Your task to perform on an android device: Set the phone to "Do not disturb". Image 0: 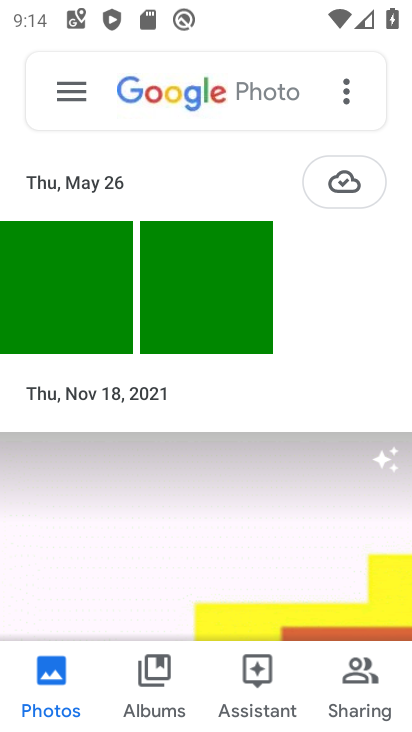
Step 0: press home button
Your task to perform on an android device: Set the phone to "Do not disturb". Image 1: 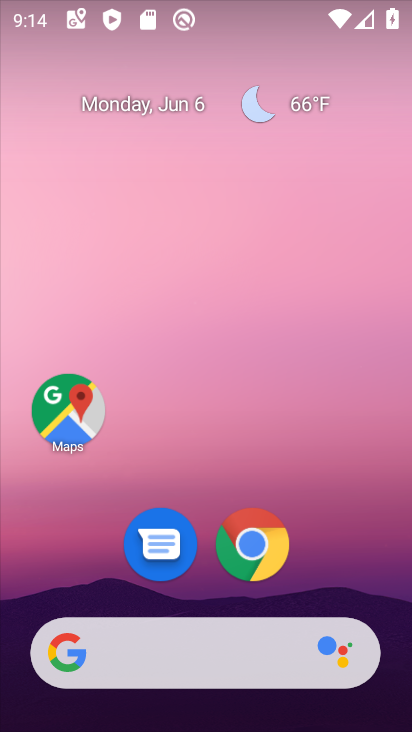
Step 1: drag from (206, 579) to (164, 251)
Your task to perform on an android device: Set the phone to "Do not disturb". Image 2: 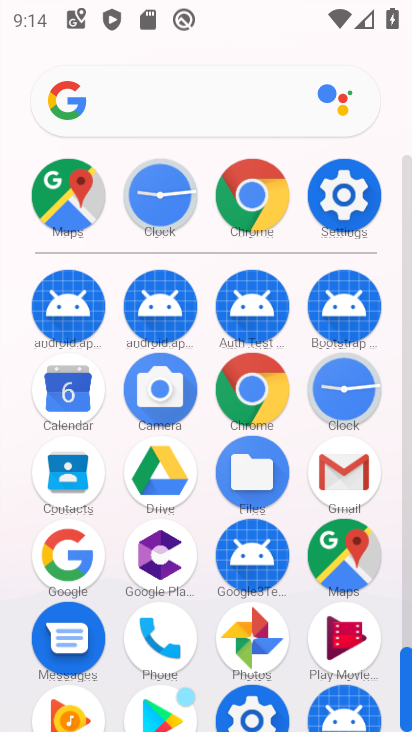
Step 2: drag from (216, 2) to (270, 439)
Your task to perform on an android device: Set the phone to "Do not disturb". Image 3: 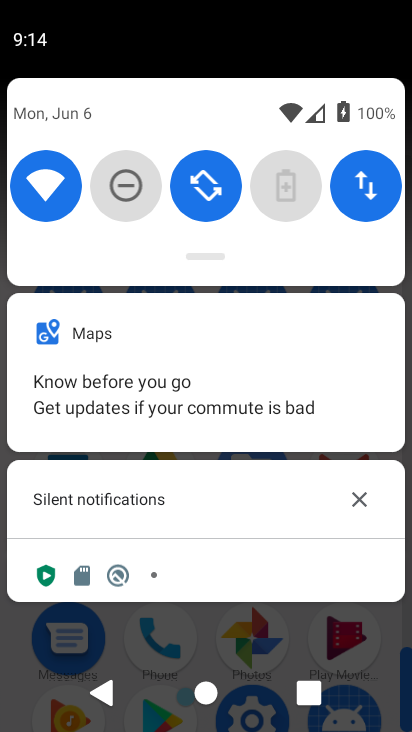
Step 3: click (123, 185)
Your task to perform on an android device: Set the phone to "Do not disturb". Image 4: 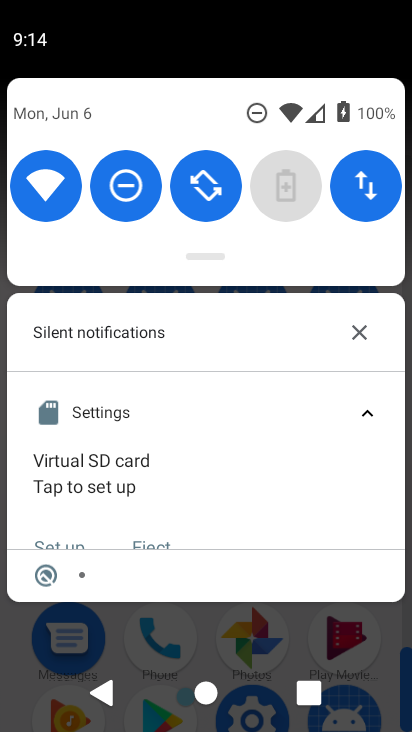
Step 4: task complete